Your task to perform on an android device: Go to network settings Image 0: 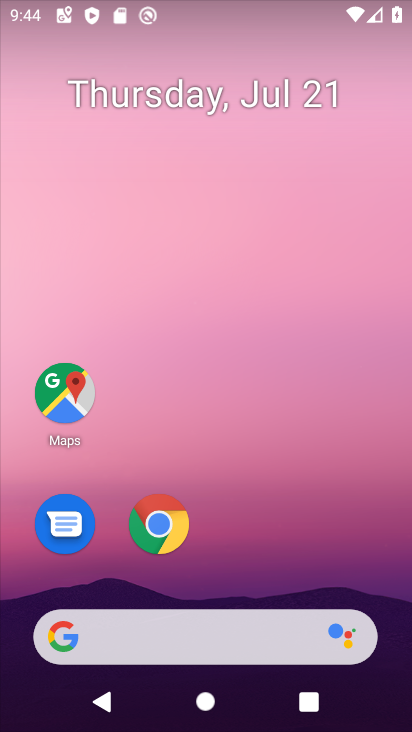
Step 0: press home button
Your task to perform on an android device: Go to network settings Image 1: 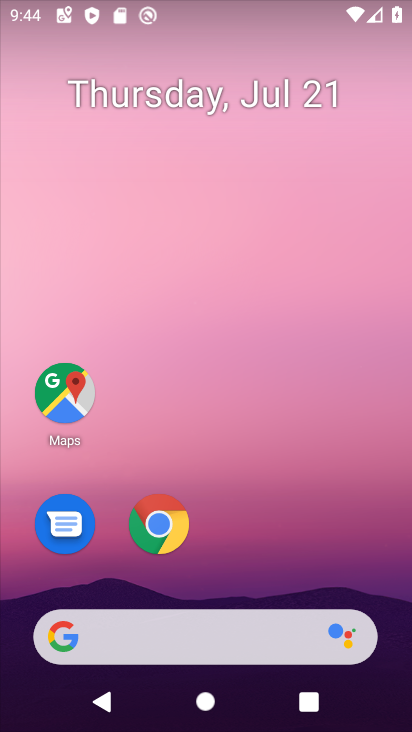
Step 1: drag from (209, 649) to (261, 110)
Your task to perform on an android device: Go to network settings Image 2: 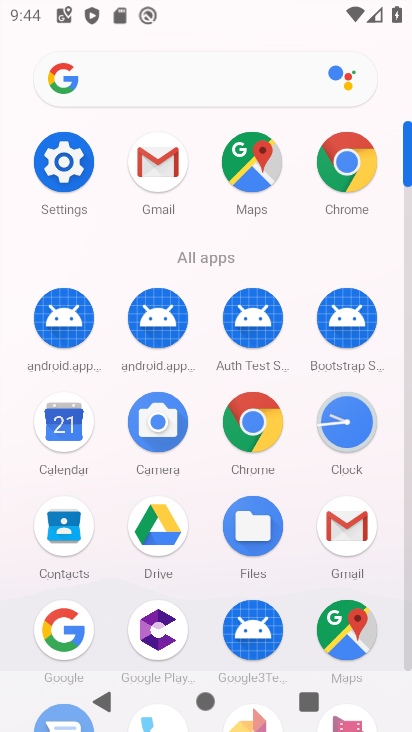
Step 2: click (68, 161)
Your task to perform on an android device: Go to network settings Image 3: 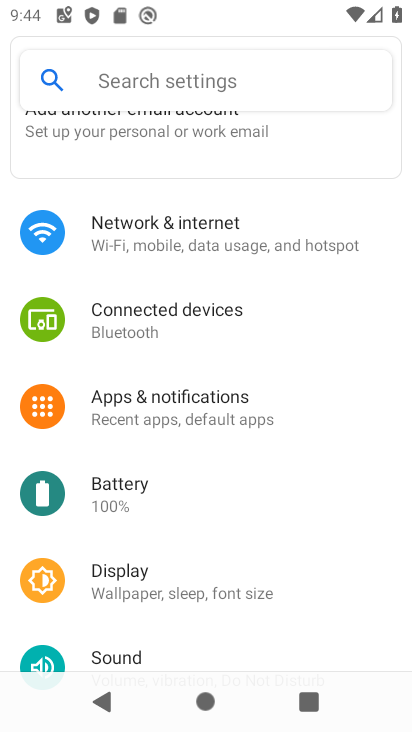
Step 3: click (157, 224)
Your task to perform on an android device: Go to network settings Image 4: 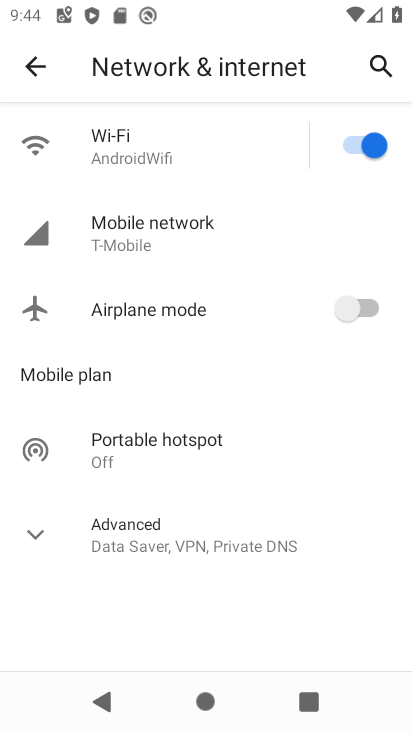
Step 4: click (159, 228)
Your task to perform on an android device: Go to network settings Image 5: 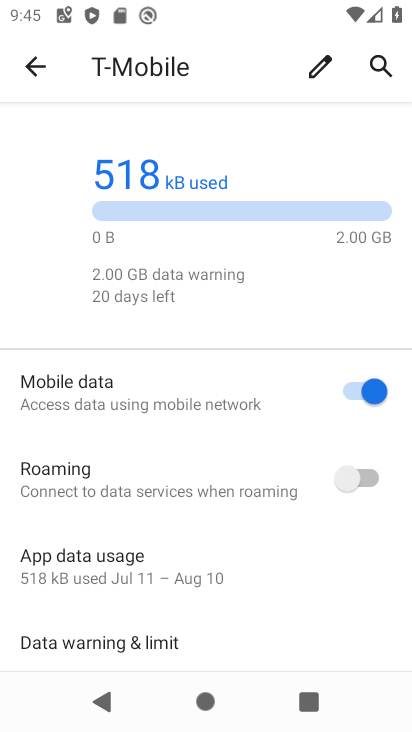
Step 5: task complete